Your task to perform on an android device: Open location settings Image 0: 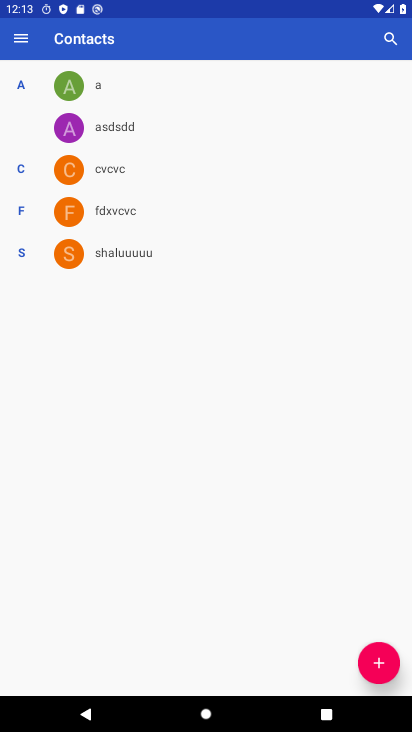
Step 0: press home button
Your task to perform on an android device: Open location settings Image 1: 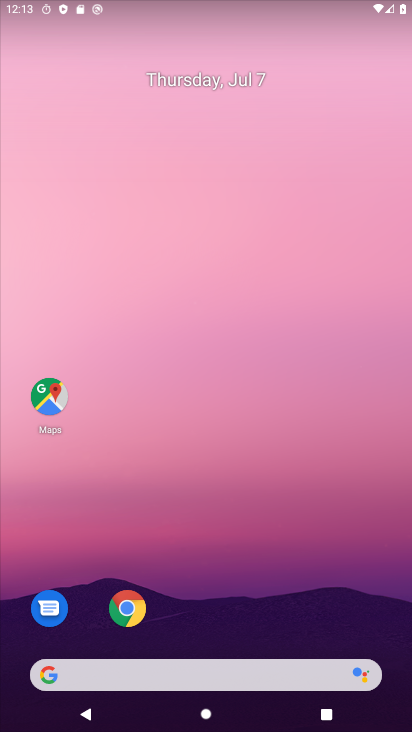
Step 1: drag from (176, 628) to (235, 129)
Your task to perform on an android device: Open location settings Image 2: 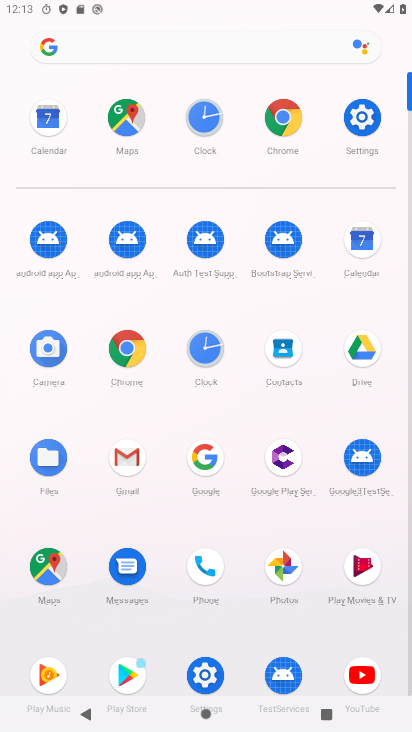
Step 2: click (345, 102)
Your task to perform on an android device: Open location settings Image 3: 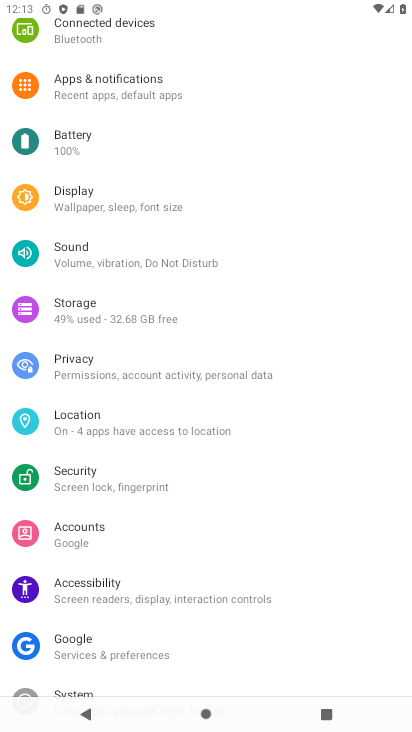
Step 3: click (118, 432)
Your task to perform on an android device: Open location settings Image 4: 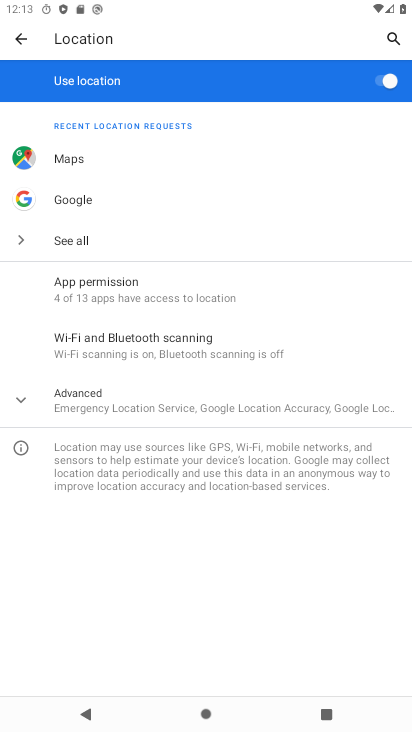
Step 4: task complete